Your task to perform on an android device: check android version Image 0: 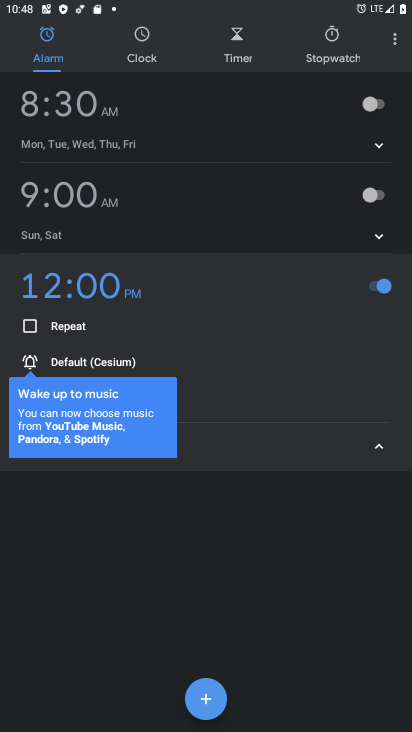
Step 0: press home button
Your task to perform on an android device: check android version Image 1: 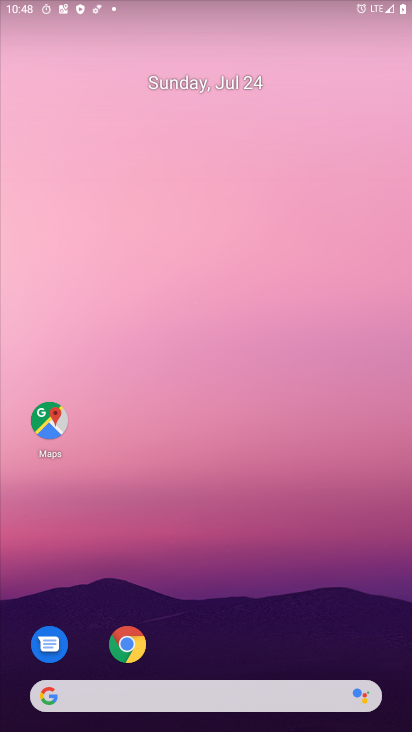
Step 1: drag from (244, 692) to (209, 208)
Your task to perform on an android device: check android version Image 2: 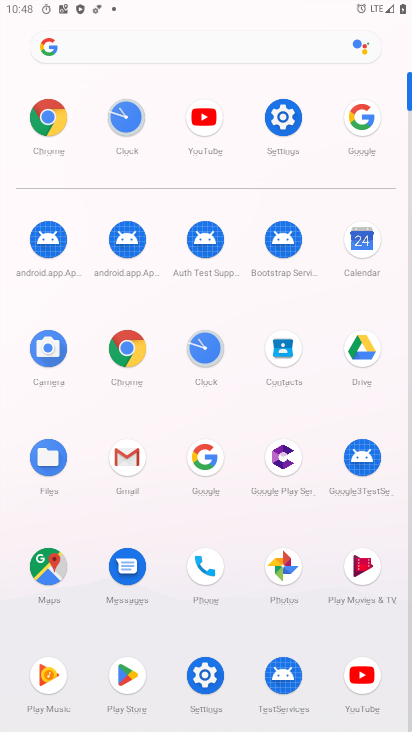
Step 2: click (277, 123)
Your task to perform on an android device: check android version Image 3: 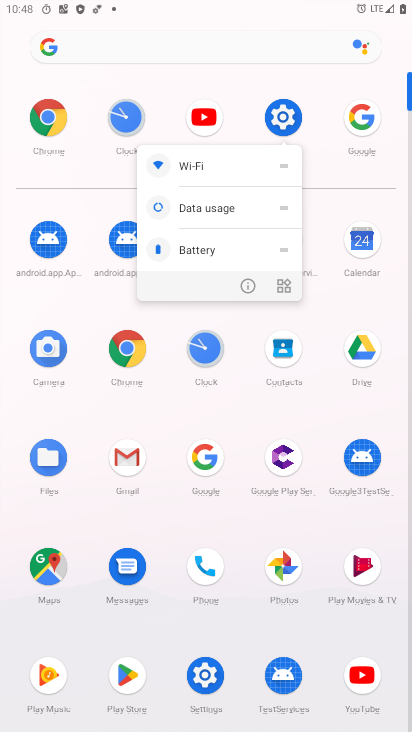
Step 3: click (278, 121)
Your task to perform on an android device: check android version Image 4: 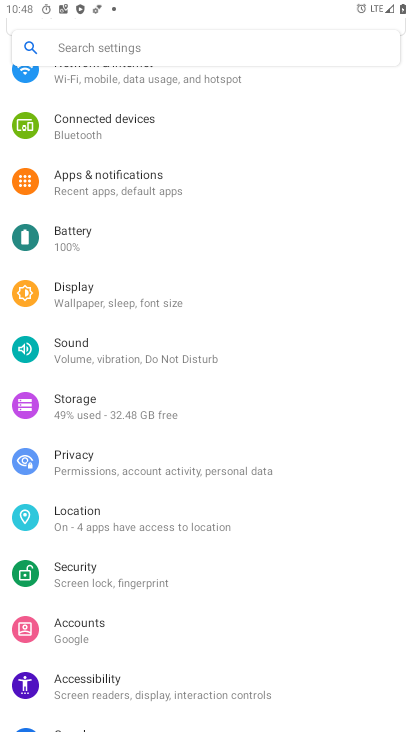
Step 4: drag from (127, 686) to (153, 209)
Your task to perform on an android device: check android version Image 5: 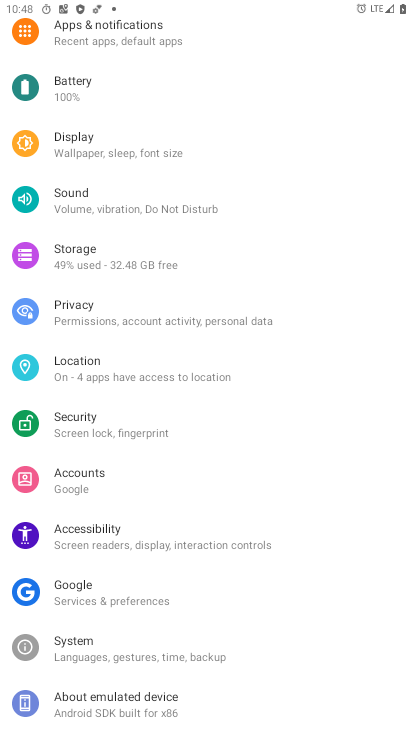
Step 5: click (107, 712)
Your task to perform on an android device: check android version Image 6: 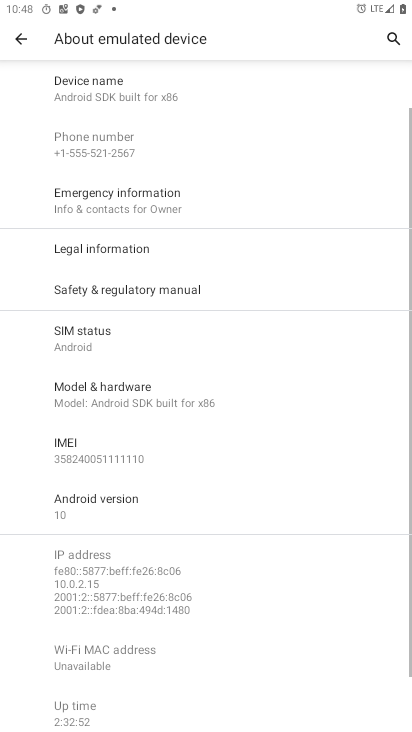
Step 6: task complete